Your task to perform on an android device: turn on sleep mode Image 0: 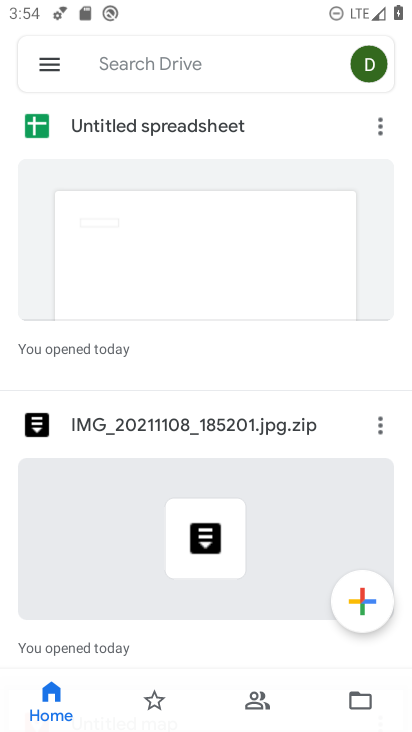
Step 0: press home button
Your task to perform on an android device: turn on sleep mode Image 1: 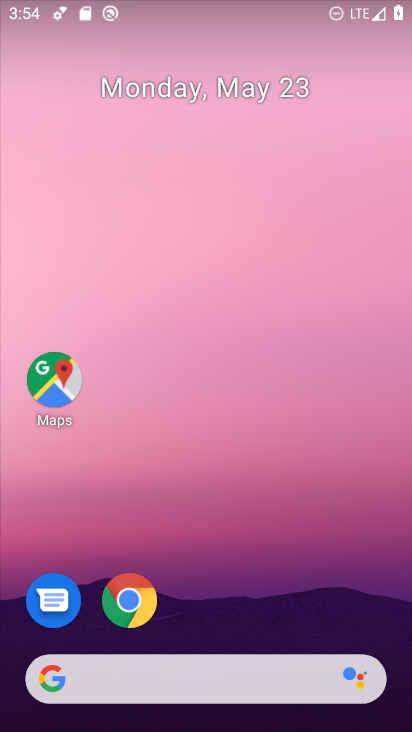
Step 1: drag from (316, 641) to (329, 19)
Your task to perform on an android device: turn on sleep mode Image 2: 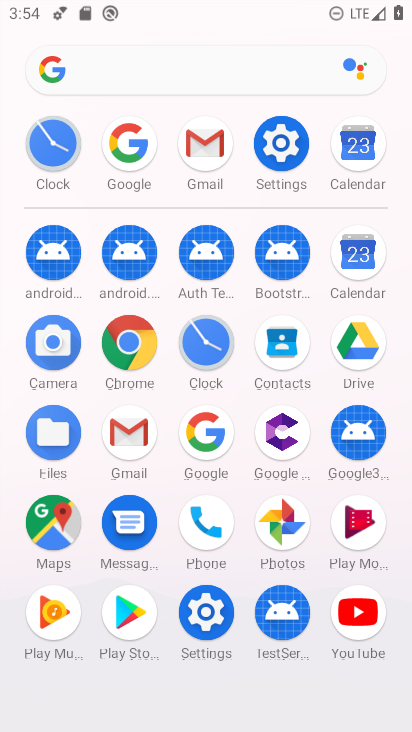
Step 2: click (278, 147)
Your task to perform on an android device: turn on sleep mode Image 3: 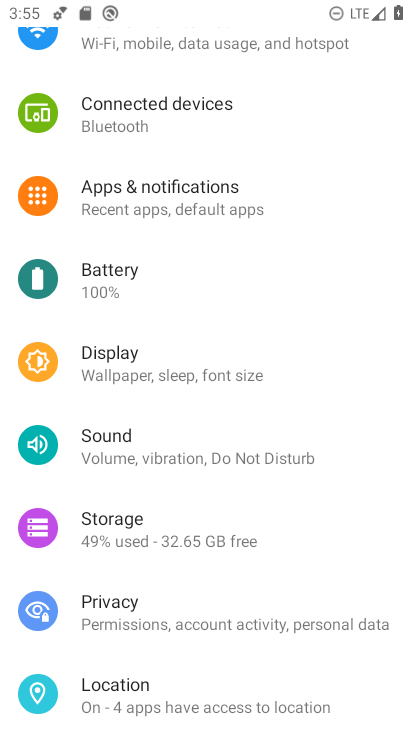
Step 3: click (112, 365)
Your task to perform on an android device: turn on sleep mode Image 4: 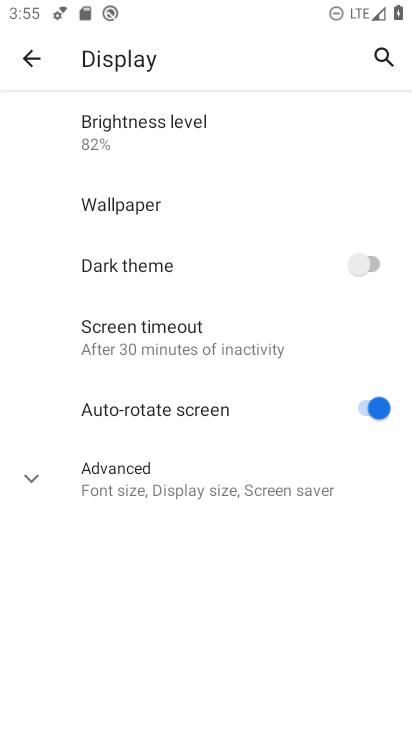
Step 4: click (37, 481)
Your task to perform on an android device: turn on sleep mode Image 5: 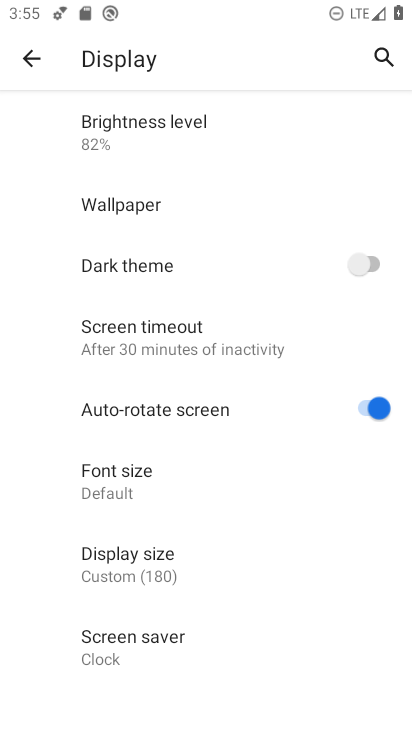
Step 5: task complete